Your task to perform on an android device: See recent photos Image 0: 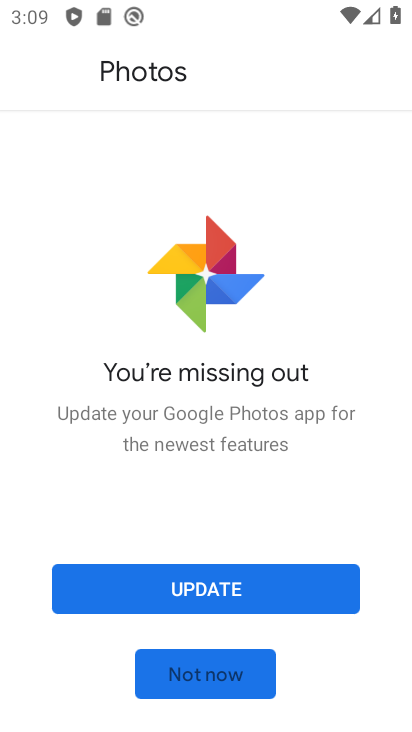
Step 0: click (212, 674)
Your task to perform on an android device: See recent photos Image 1: 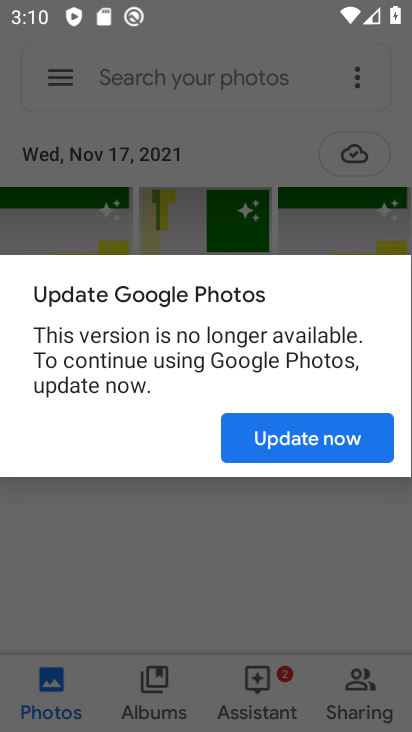
Step 1: click (289, 443)
Your task to perform on an android device: See recent photos Image 2: 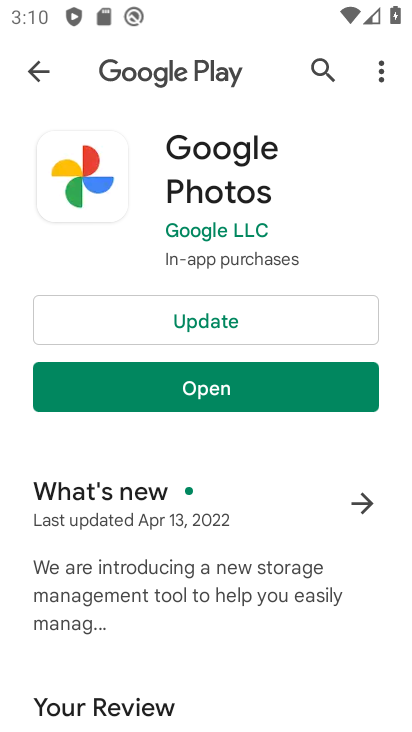
Step 2: click (216, 386)
Your task to perform on an android device: See recent photos Image 3: 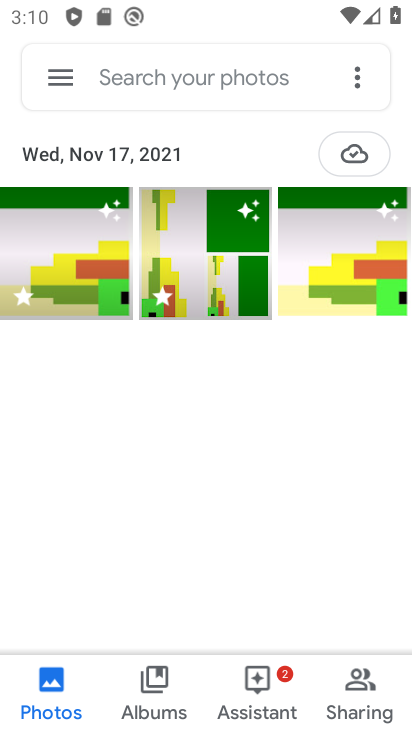
Step 3: task complete